Your task to perform on an android device: turn off data saver in the chrome app Image 0: 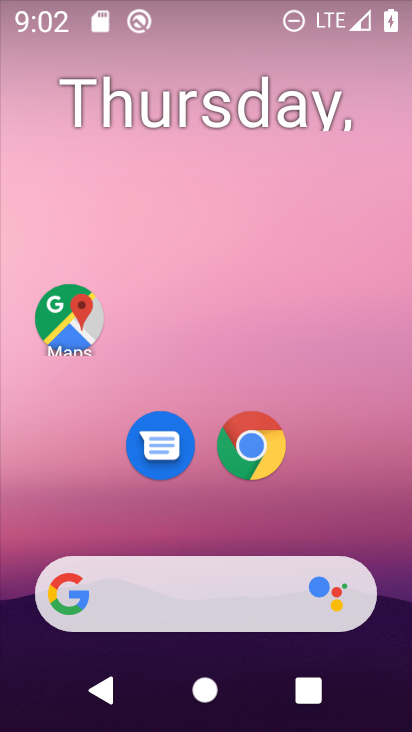
Step 0: click (327, 127)
Your task to perform on an android device: turn off data saver in the chrome app Image 1: 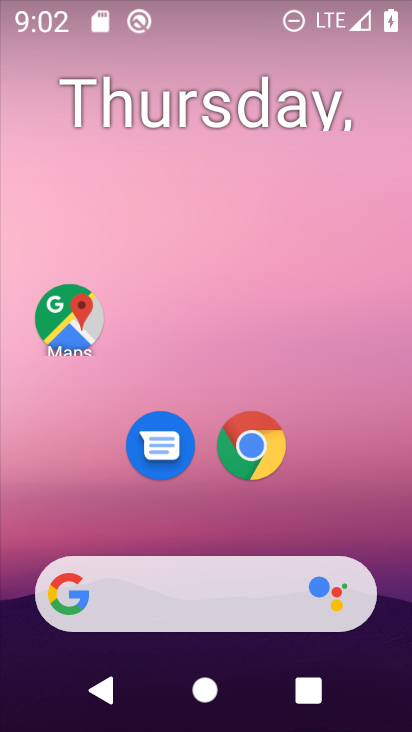
Step 1: drag from (389, 614) to (228, 3)
Your task to perform on an android device: turn off data saver in the chrome app Image 2: 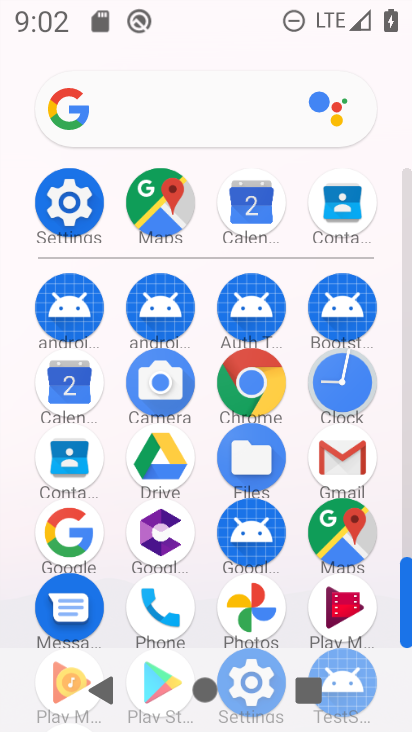
Step 2: click (242, 391)
Your task to perform on an android device: turn off data saver in the chrome app Image 3: 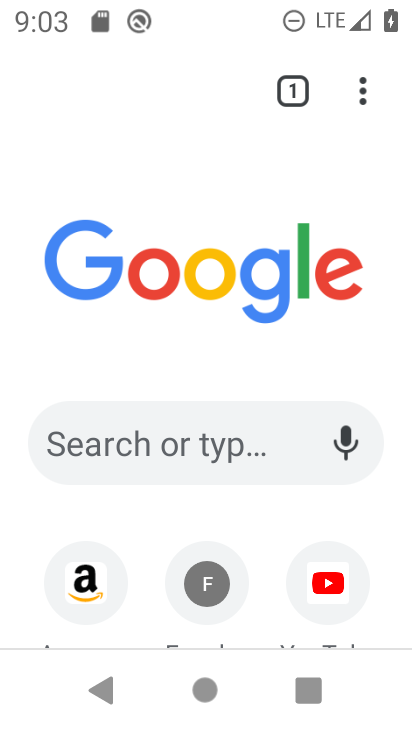
Step 3: click (364, 77)
Your task to perform on an android device: turn off data saver in the chrome app Image 4: 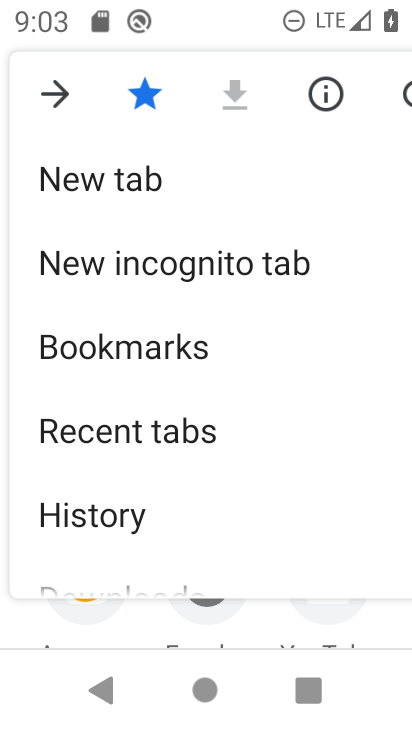
Step 4: drag from (119, 540) to (205, 59)
Your task to perform on an android device: turn off data saver in the chrome app Image 5: 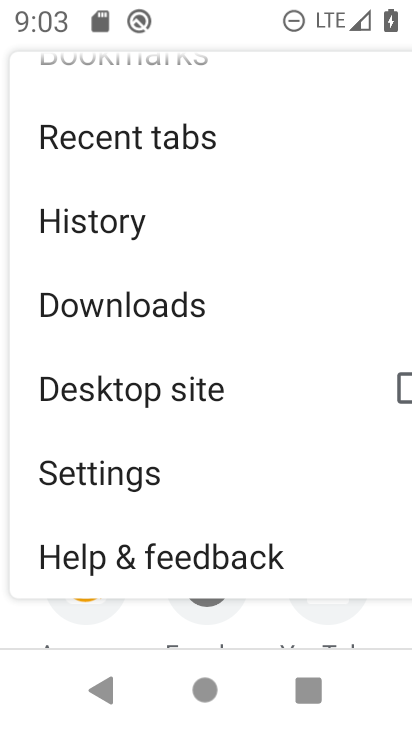
Step 5: click (141, 473)
Your task to perform on an android device: turn off data saver in the chrome app Image 6: 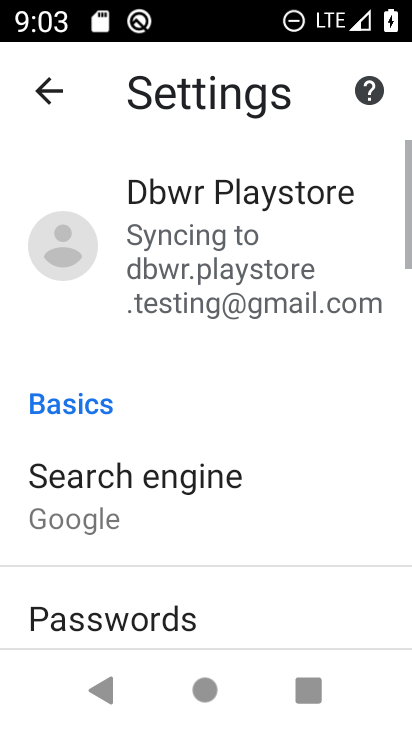
Step 6: drag from (184, 469) to (214, 47)
Your task to perform on an android device: turn off data saver in the chrome app Image 7: 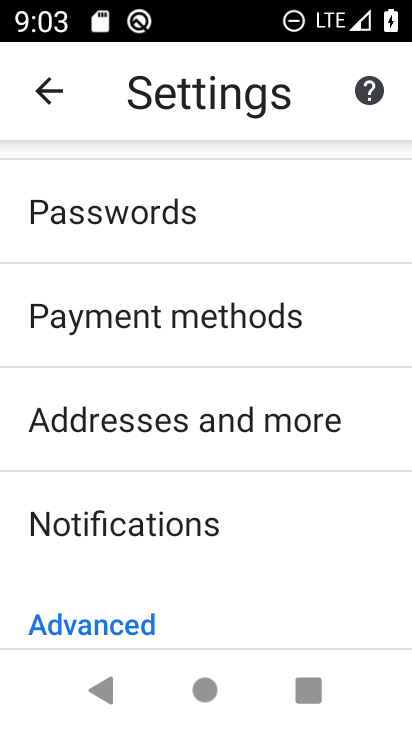
Step 7: drag from (195, 543) to (248, 93)
Your task to perform on an android device: turn off data saver in the chrome app Image 8: 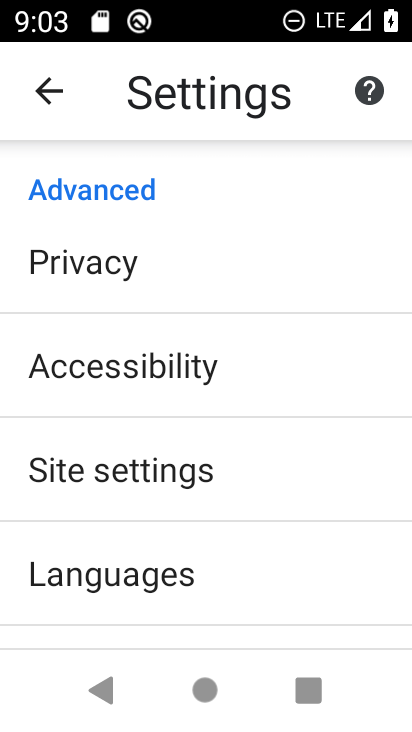
Step 8: drag from (127, 570) to (219, 202)
Your task to perform on an android device: turn off data saver in the chrome app Image 9: 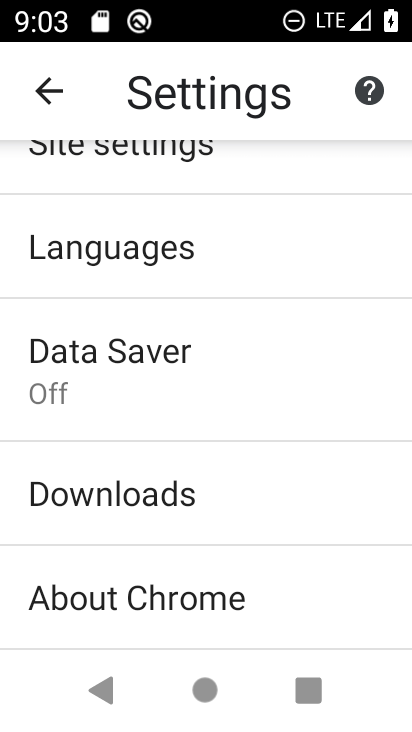
Step 9: click (191, 394)
Your task to perform on an android device: turn off data saver in the chrome app Image 10: 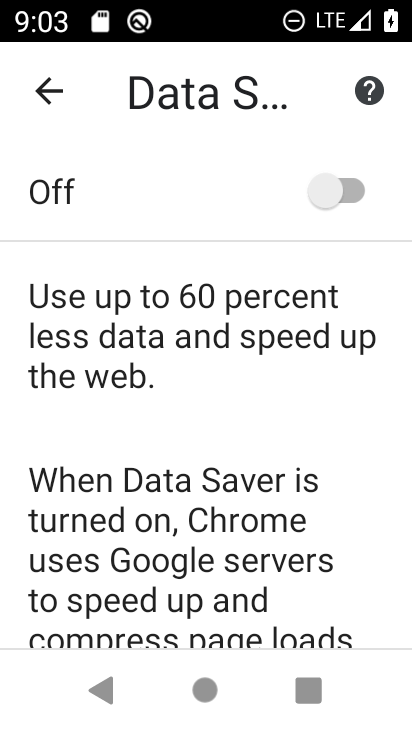
Step 10: task complete